Your task to perform on an android device: check storage Image 0: 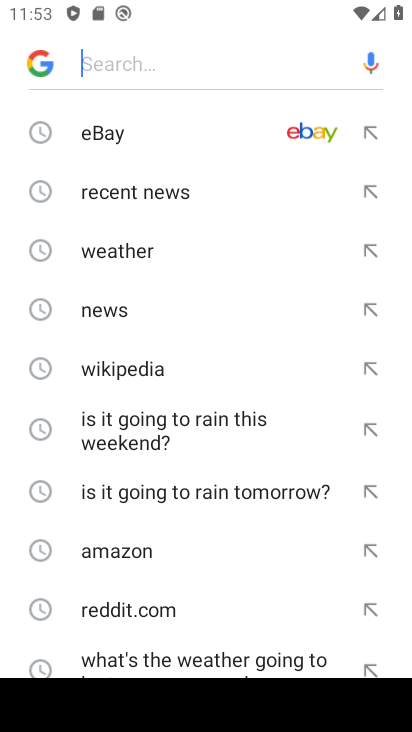
Step 0: press back button
Your task to perform on an android device: check storage Image 1: 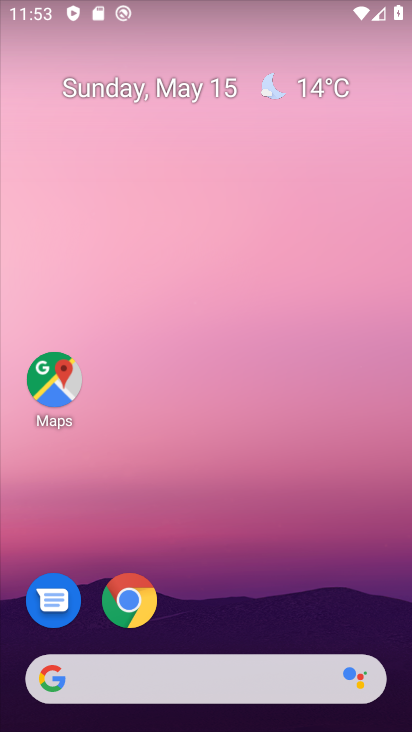
Step 1: drag from (255, 603) to (242, 77)
Your task to perform on an android device: check storage Image 2: 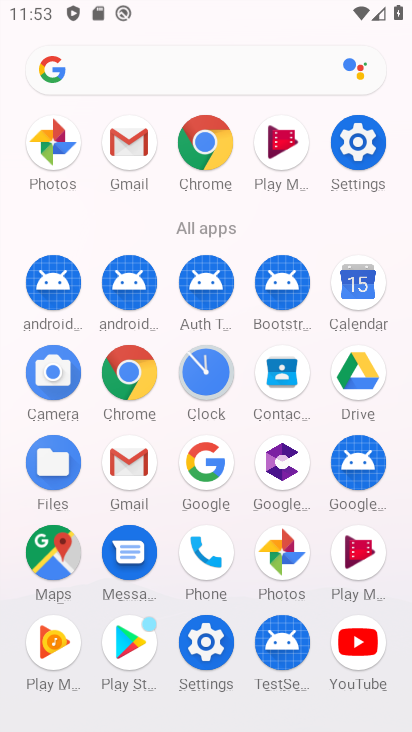
Step 2: drag from (7, 545) to (15, 199)
Your task to perform on an android device: check storage Image 3: 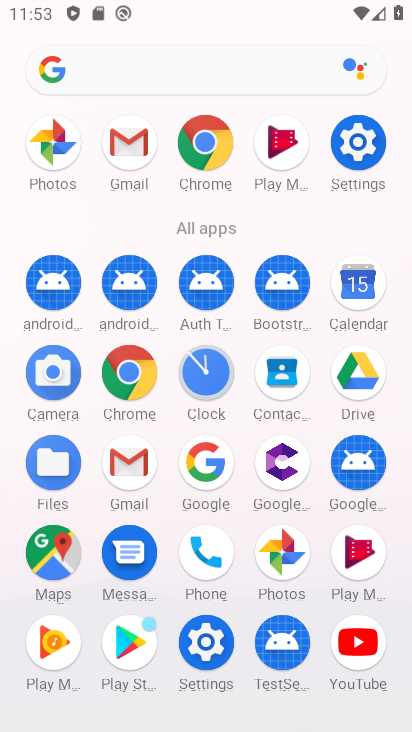
Step 3: click (209, 636)
Your task to perform on an android device: check storage Image 4: 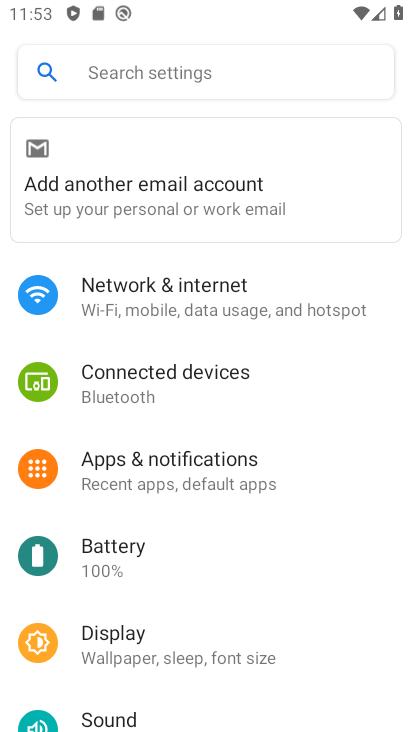
Step 4: drag from (206, 613) to (254, 199)
Your task to perform on an android device: check storage Image 5: 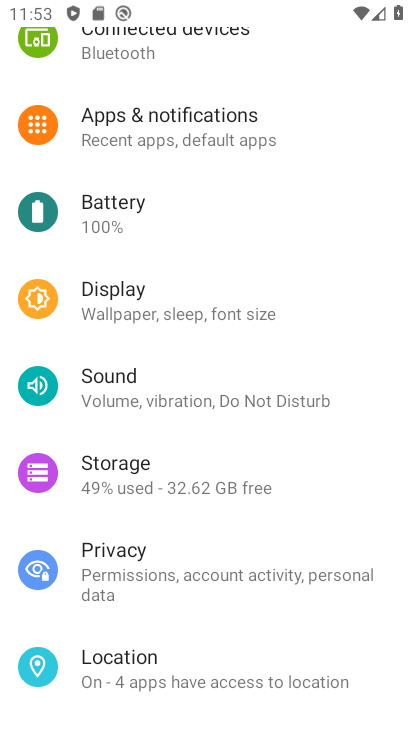
Step 5: click (164, 473)
Your task to perform on an android device: check storage Image 6: 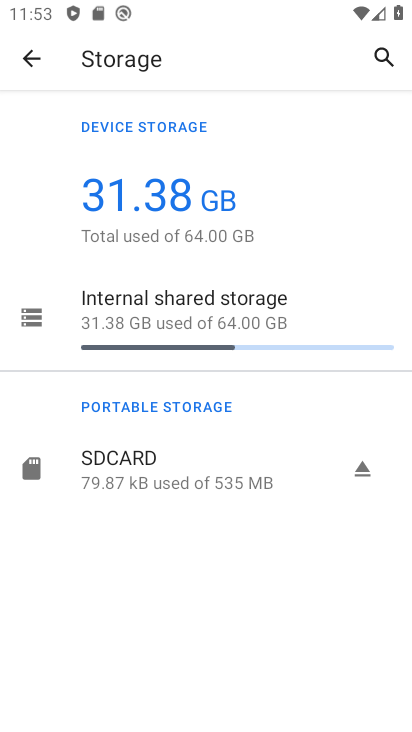
Step 6: task complete